Your task to perform on an android device: Open Android settings Image 0: 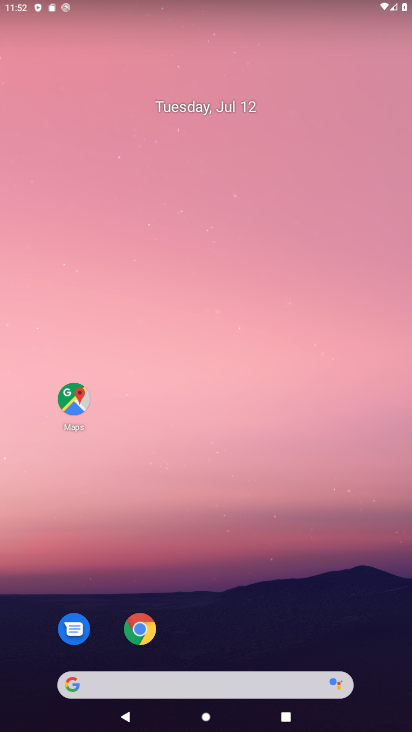
Step 0: drag from (259, 610) to (203, 138)
Your task to perform on an android device: Open Android settings Image 1: 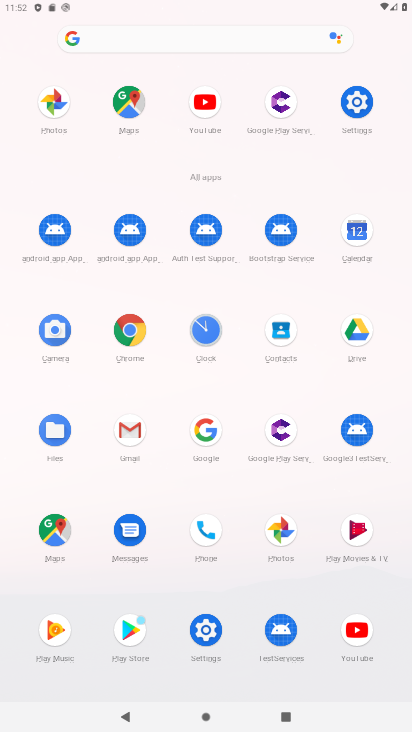
Step 1: click (363, 112)
Your task to perform on an android device: Open Android settings Image 2: 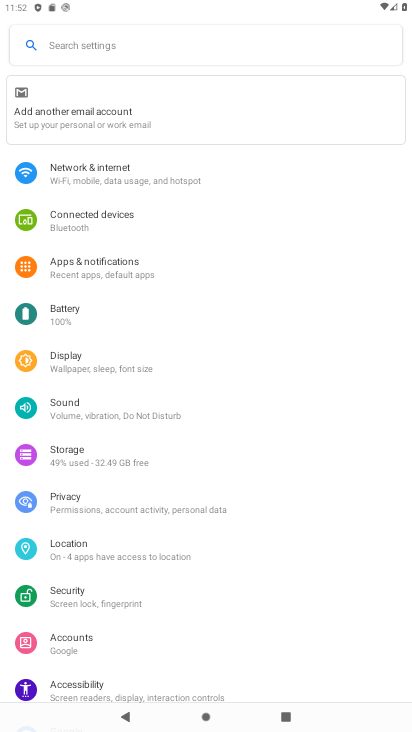
Step 2: task complete